Your task to perform on an android device: change notifications settings Image 0: 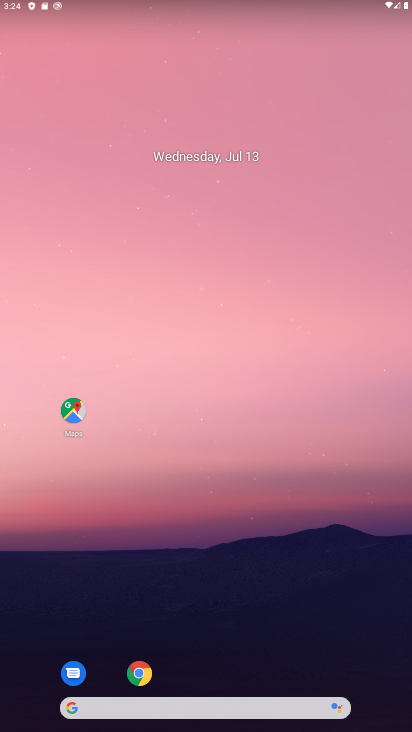
Step 0: drag from (176, 706) to (190, 258)
Your task to perform on an android device: change notifications settings Image 1: 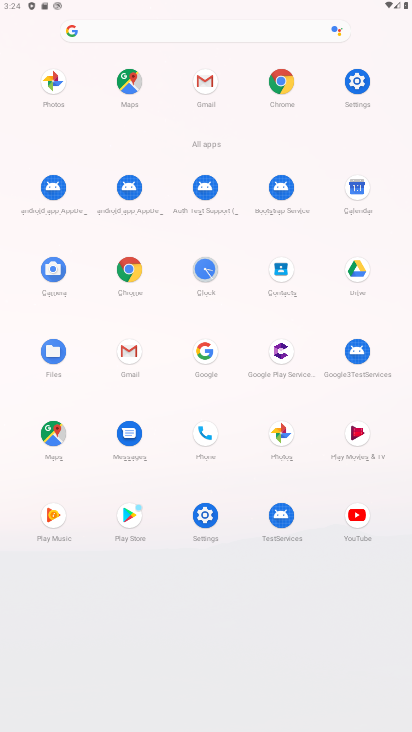
Step 1: click (202, 82)
Your task to perform on an android device: change notifications settings Image 2: 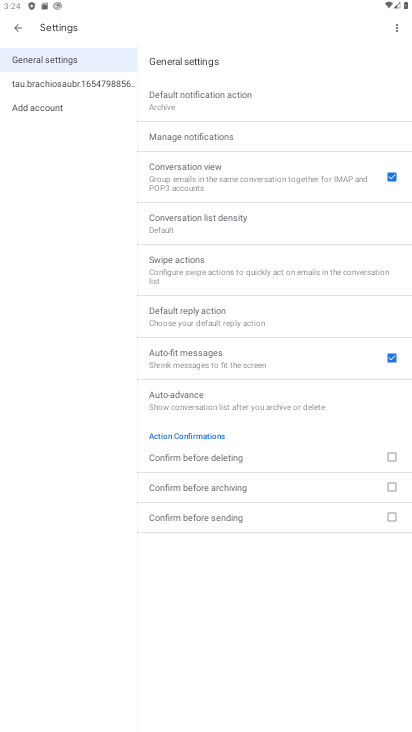
Step 2: click (211, 133)
Your task to perform on an android device: change notifications settings Image 3: 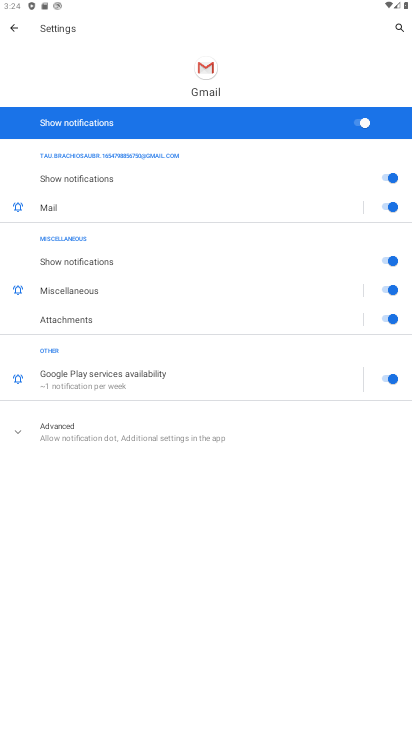
Step 3: click (364, 124)
Your task to perform on an android device: change notifications settings Image 4: 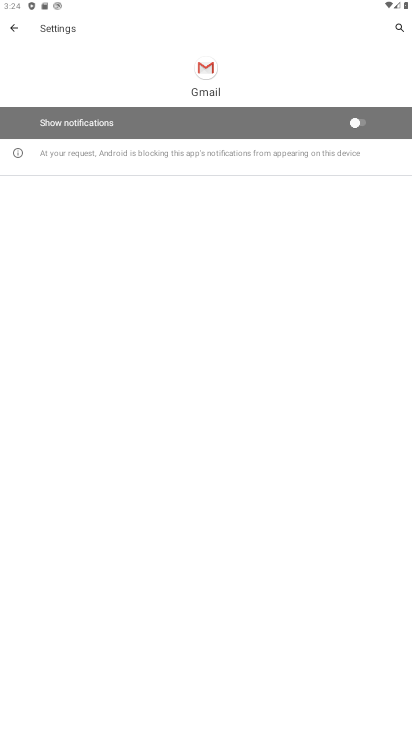
Step 4: task complete